Your task to perform on an android device: Open Amazon Image 0: 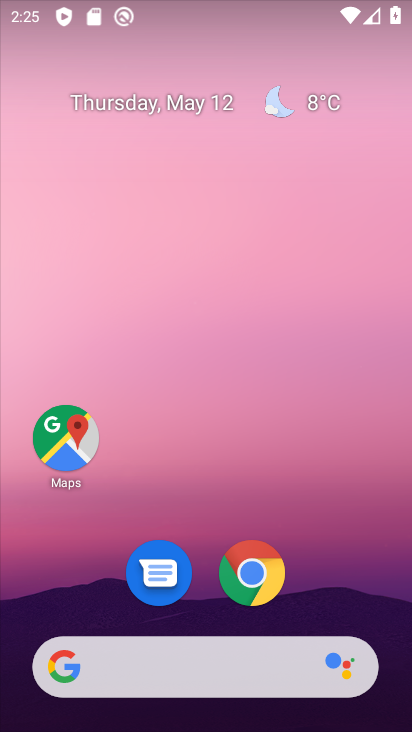
Step 0: drag from (336, 517) to (324, 10)
Your task to perform on an android device: Open Amazon Image 1: 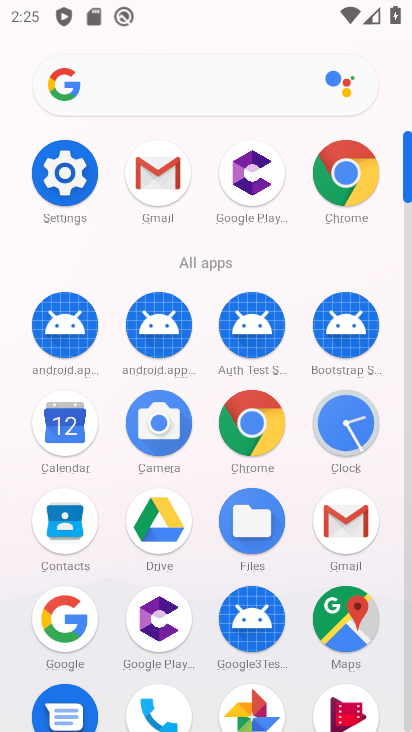
Step 1: click (338, 164)
Your task to perform on an android device: Open Amazon Image 2: 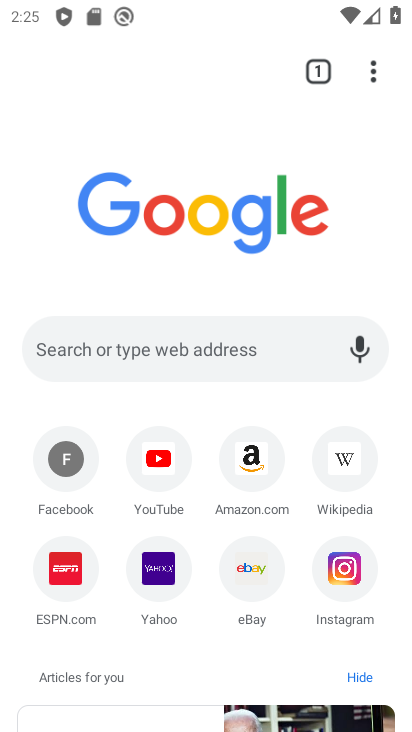
Step 2: click (245, 446)
Your task to perform on an android device: Open Amazon Image 3: 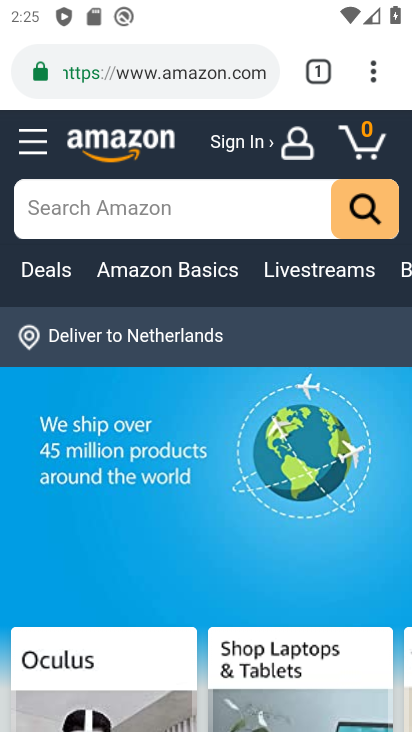
Step 3: task complete